Your task to perform on an android device: Open the Play Movies app and select the watchlist tab. Image 0: 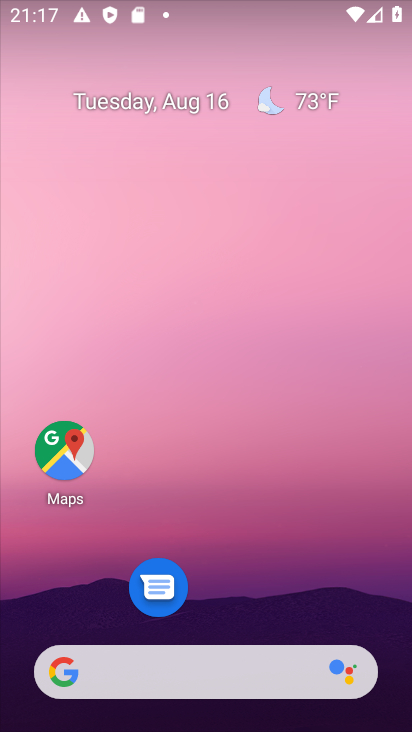
Step 0: drag from (221, 626) to (147, 60)
Your task to perform on an android device: Open the Play Movies app and select the watchlist tab. Image 1: 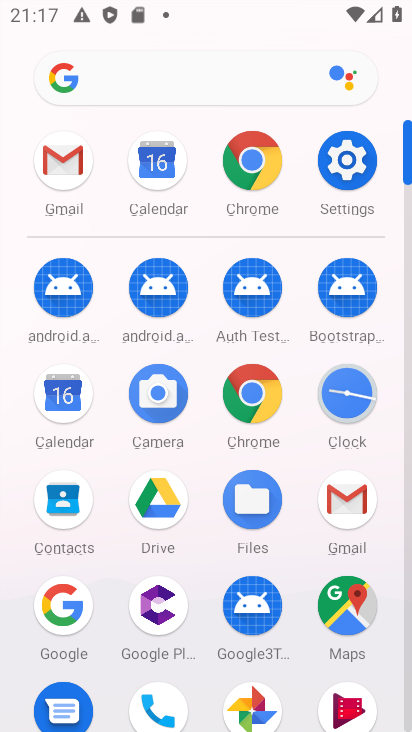
Step 1: click (337, 706)
Your task to perform on an android device: Open the Play Movies app and select the watchlist tab. Image 2: 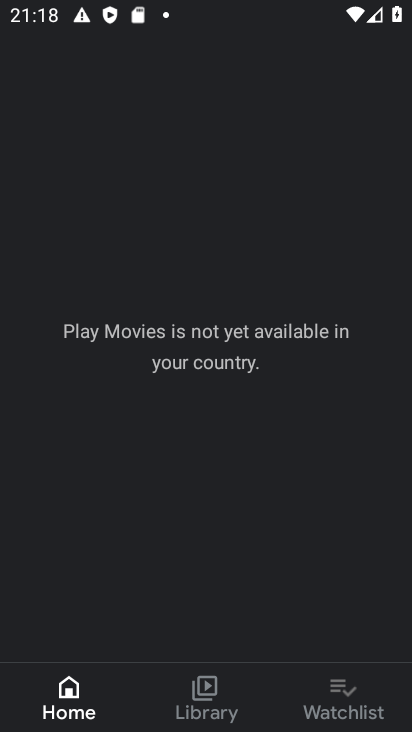
Step 2: click (364, 690)
Your task to perform on an android device: Open the Play Movies app and select the watchlist tab. Image 3: 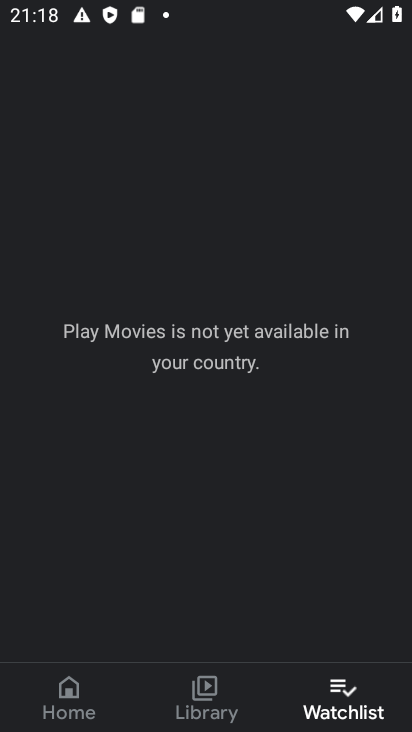
Step 3: task complete